Your task to perform on an android device: open device folders in google photos Image 0: 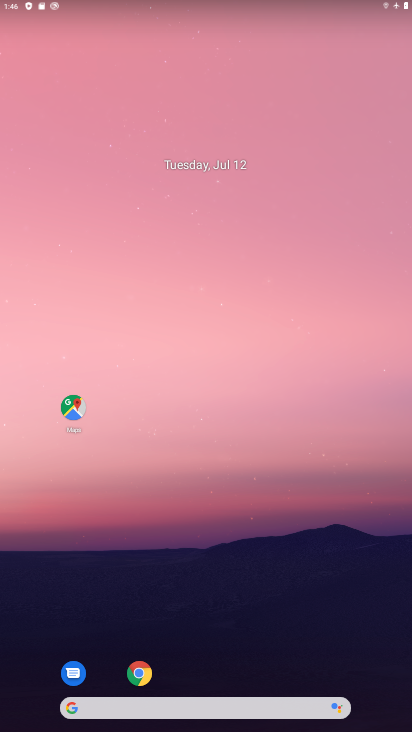
Step 0: drag from (227, 609) to (284, 247)
Your task to perform on an android device: open device folders in google photos Image 1: 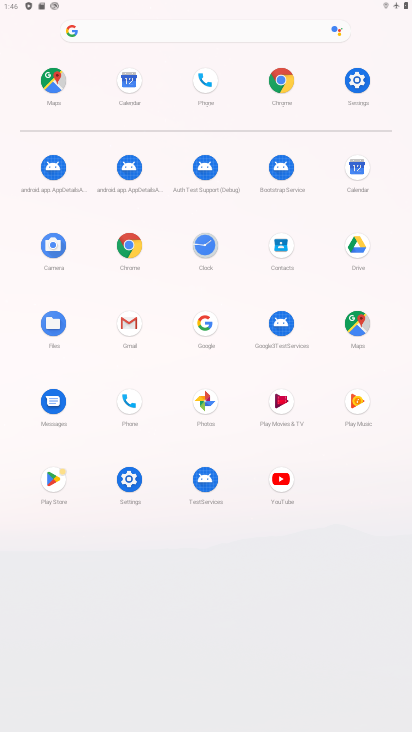
Step 1: click (206, 389)
Your task to perform on an android device: open device folders in google photos Image 2: 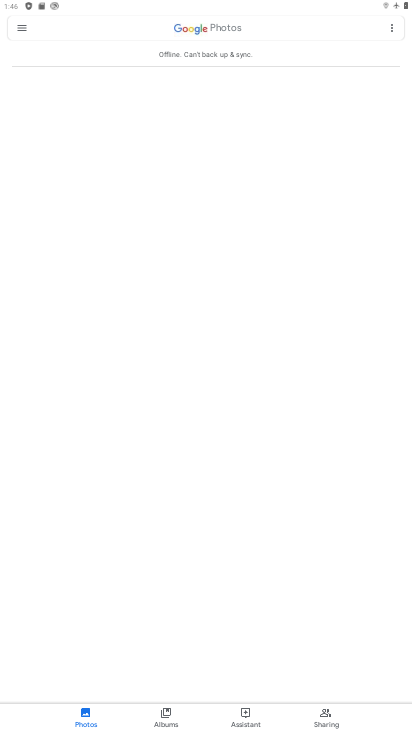
Step 2: click (174, 705)
Your task to perform on an android device: open device folders in google photos Image 3: 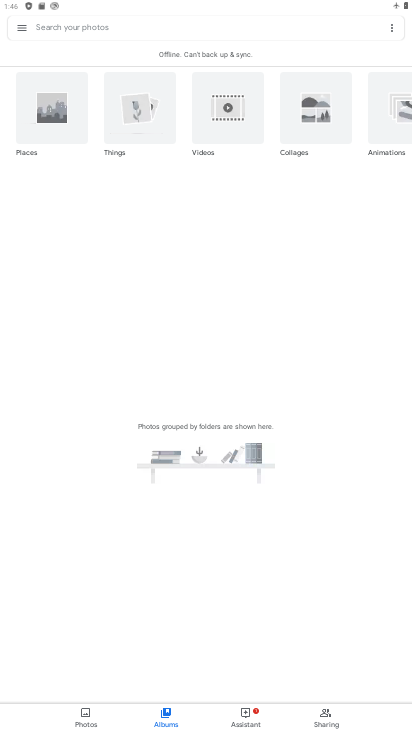
Step 3: task complete